Your task to perform on an android device: Search for "macbook pro 13 inch" on bestbuy.com, select the first entry, add it to the cart, then select checkout. Image 0: 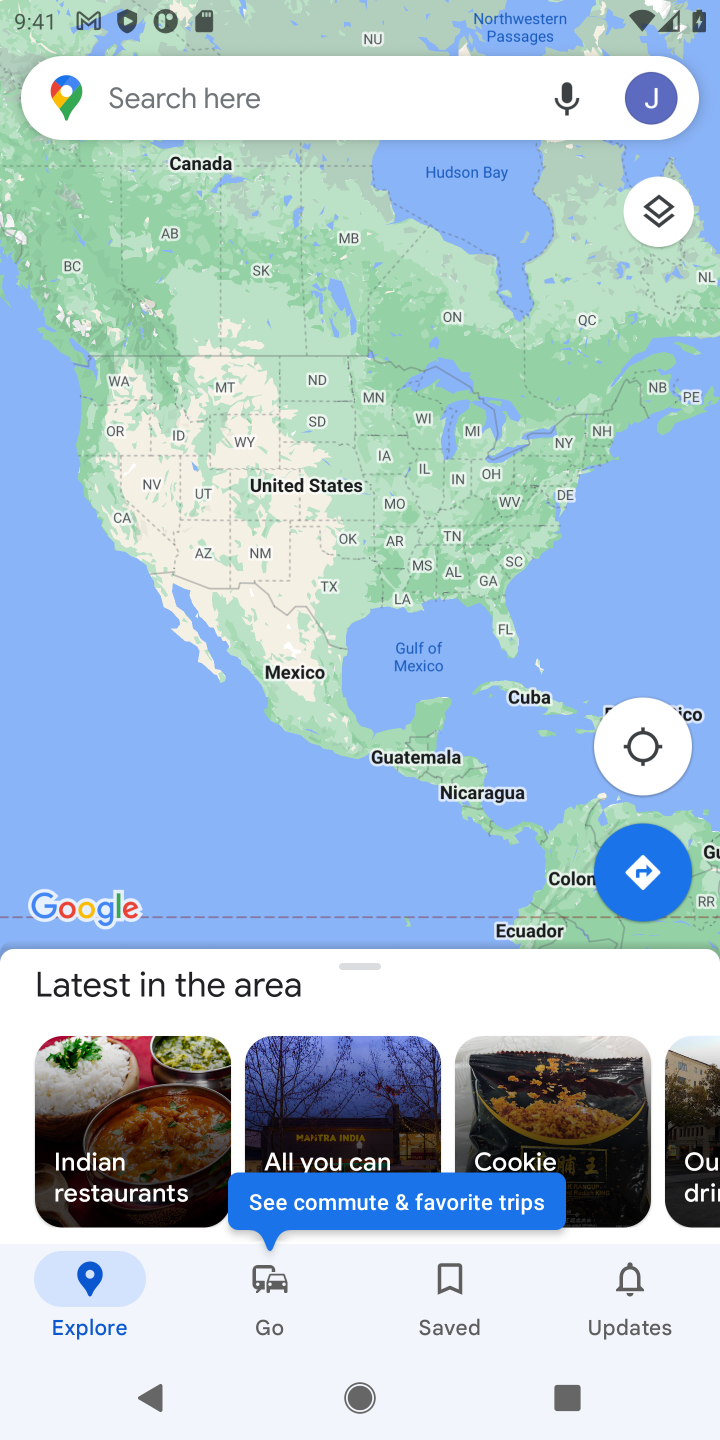
Step 0: press home button
Your task to perform on an android device: Search for "macbook pro 13 inch" on bestbuy.com, select the first entry, add it to the cart, then select checkout. Image 1: 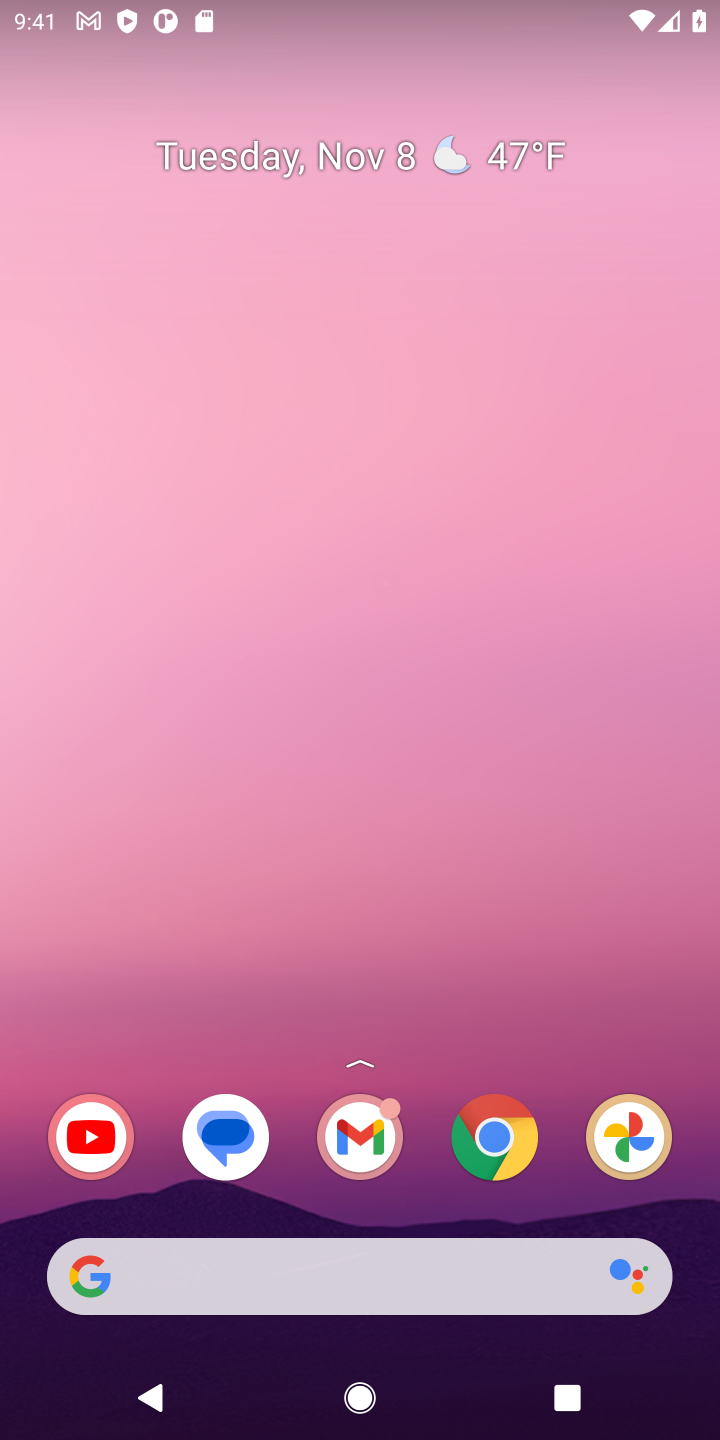
Step 1: click (494, 1135)
Your task to perform on an android device: Search for "macbook pro 13 inch" on bestbuy.com, select the first entry, add it to the cart, then select checkout. Image 2: 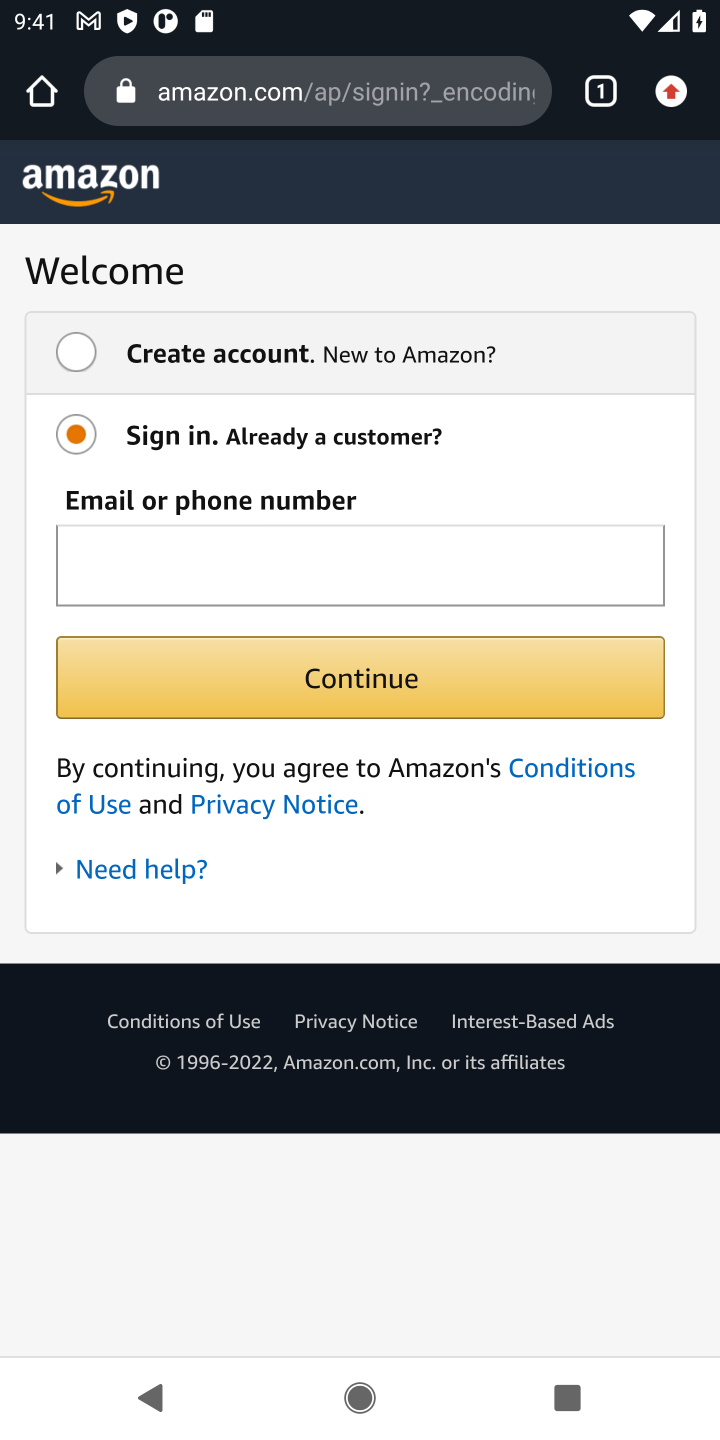
Step 2: click (418, 92)
Your task to perform on an android device: Search for "macbook pro 13 inch" on bestbuy.com, select the first entry, add it to the cart, then select checkout. Image 3: 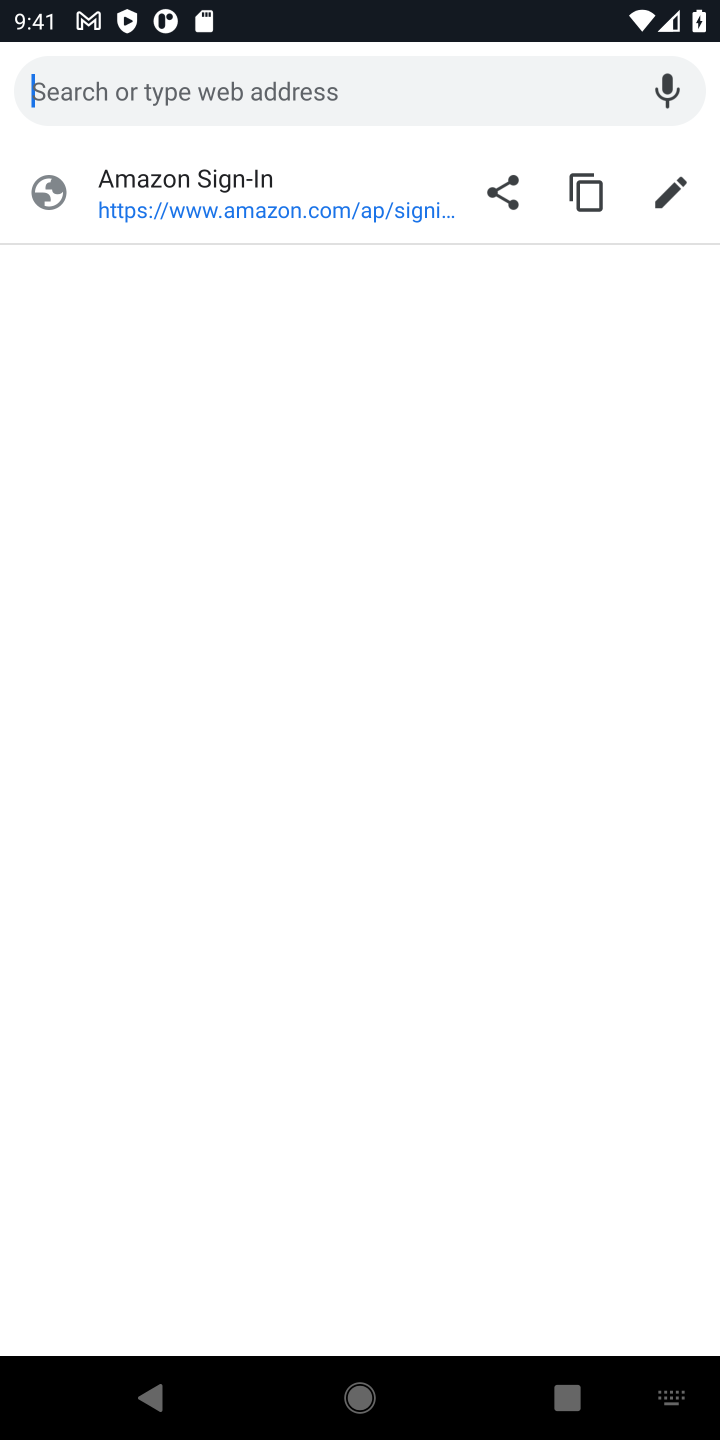
Step 3: type "bestbuy.com"
Your task to perform on an android device: Search for "macbook pro 13 inch" on bestbuy.com, select the first entry, add it to the cart, then select checkout. Image 4: 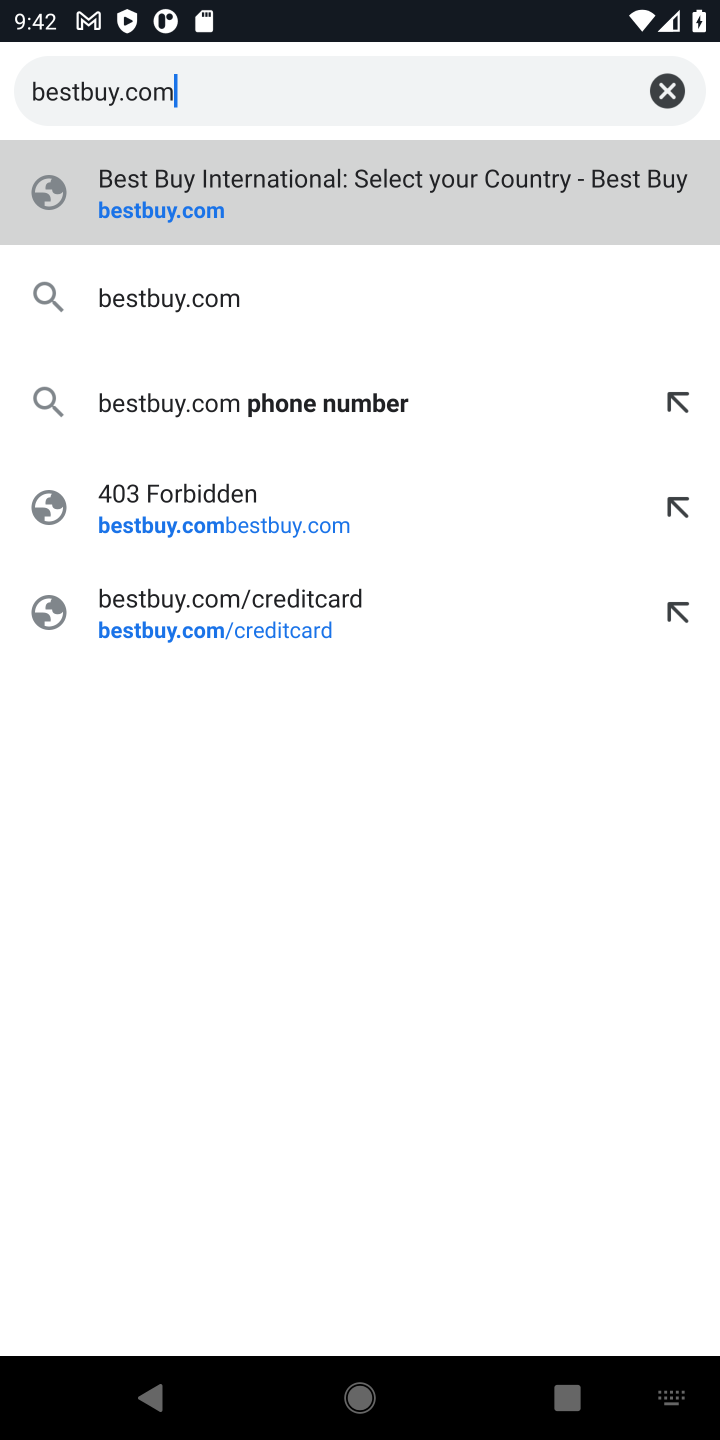
Step 4: click (235, 303)
Your task to perform on an android device: Search for "macbook pro 13 inch" on bestbuy.com, select the first entry, add it to the cart, then select checkout. Image 5: 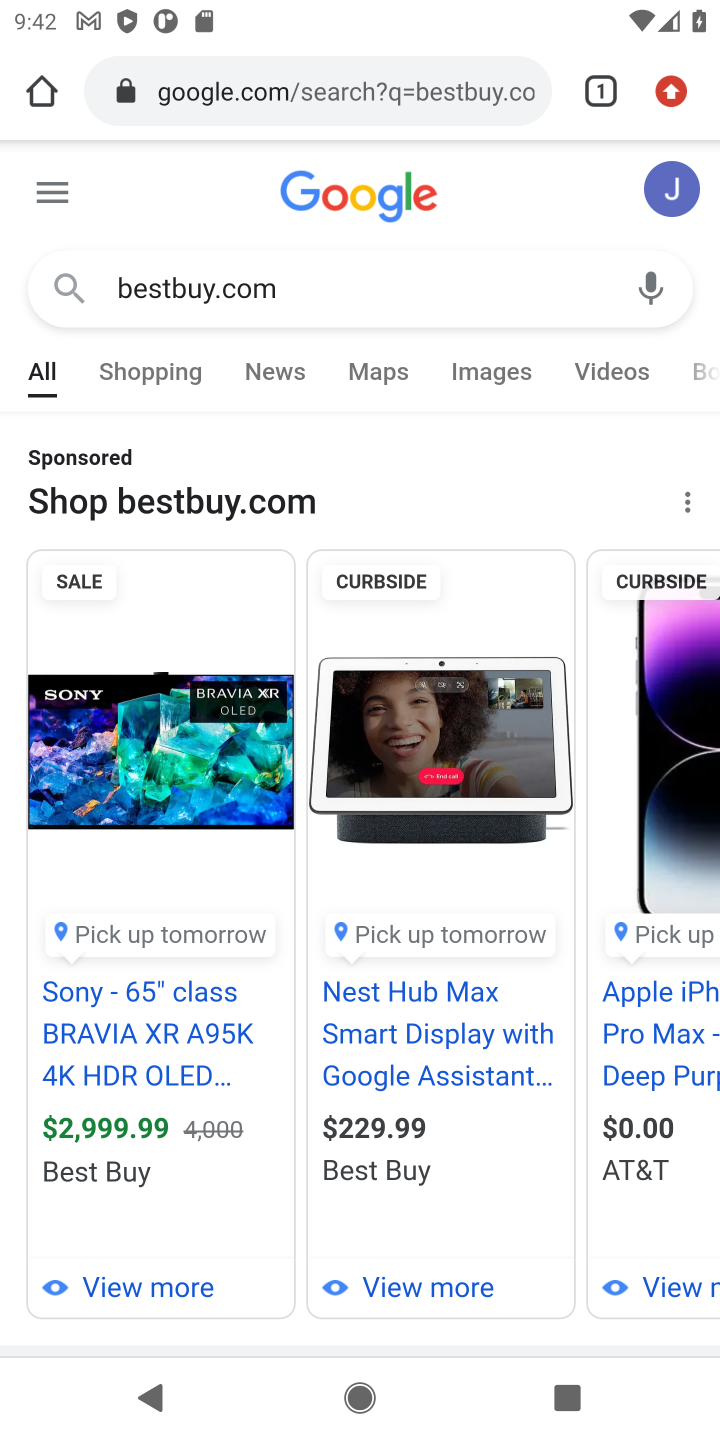
Step 5: drag from (481, 1187) to (561, 226)
Your task to perform on an android device: Search for "macbook pro 13 inch" on bestbuy.com, select the first entry, add it to the cart, then select checkout. Image 6: 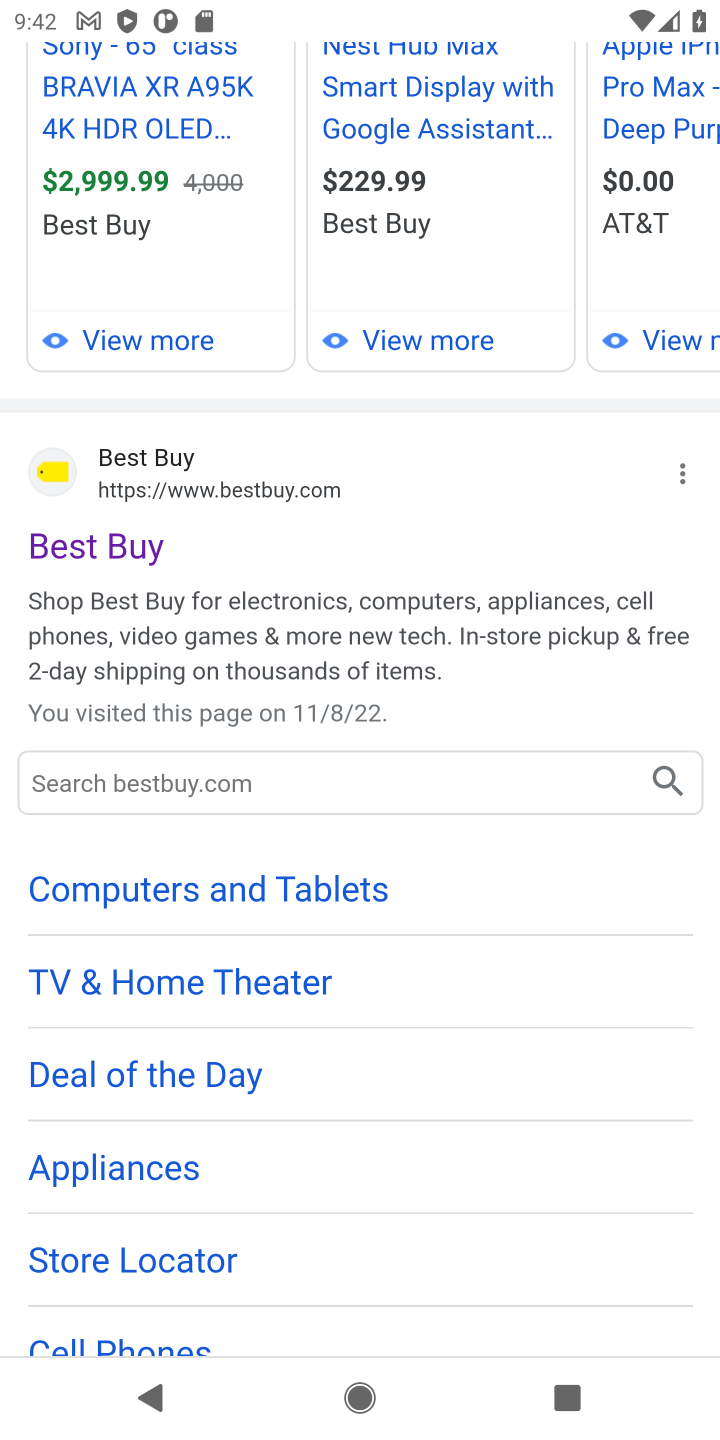
Step 6: click (172, 539)
Your task to perform on an android device: Search for "macbook pro 13 inch" on bestbuy.com, select the first entry, add it to the cart, then select checkout. Image 7: 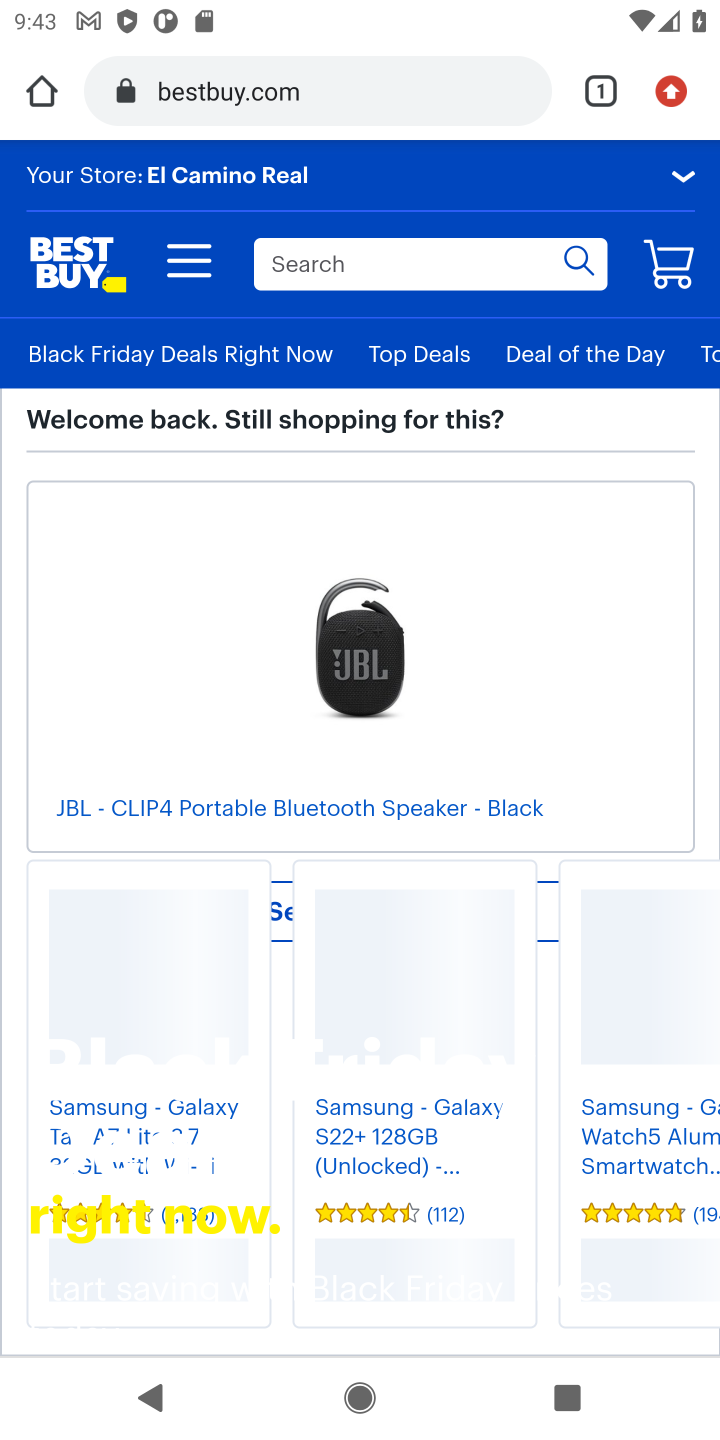
Step 7: click (364, 270)
Your task to perform on an android device: Search for "macbook pro 13 inch" on bestbuy.com, select the first entry, add it to the cart, then select checkout. Image 8: 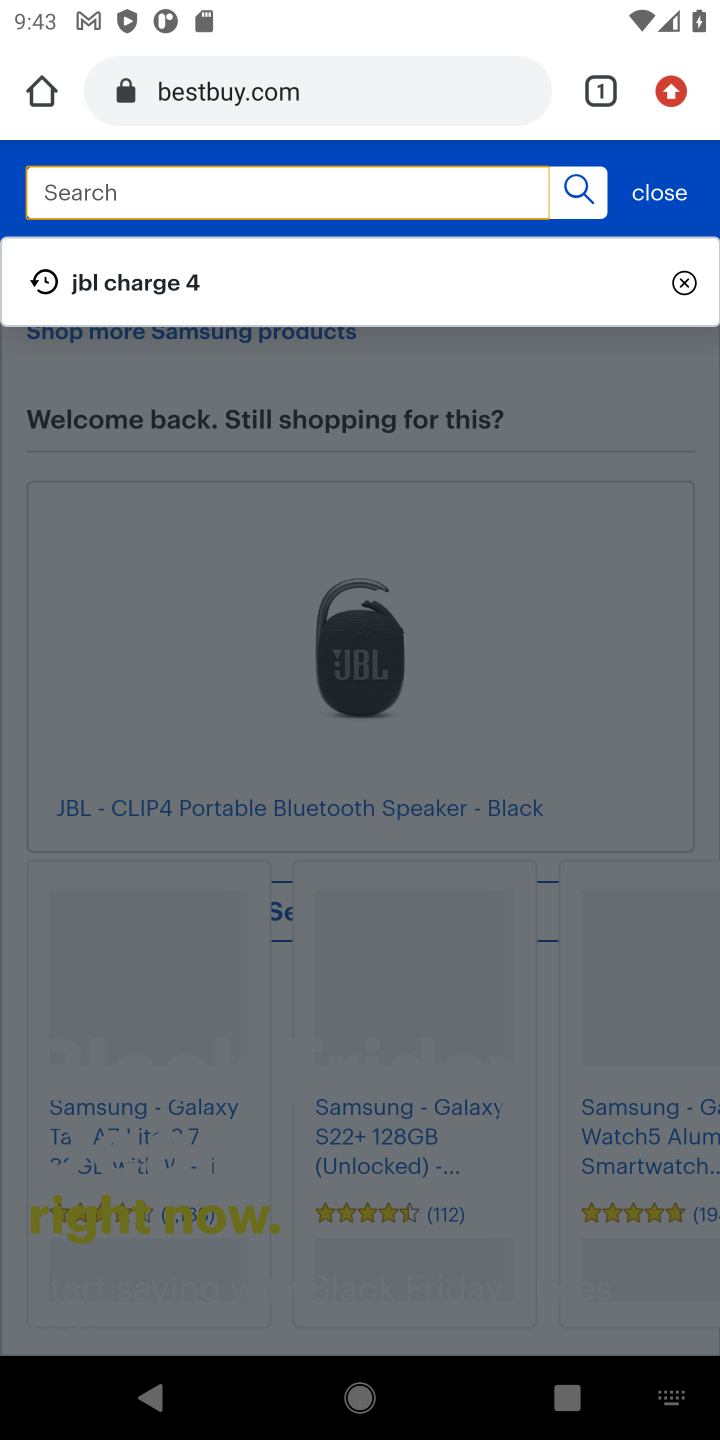
Step 8: type "macbook pro 13 inch"
Your task to perform on an android device: Search for "macbook pro 13 inch" on bestbuy.com, select the first entry, add it to the cart, then select checkout. Image 9: 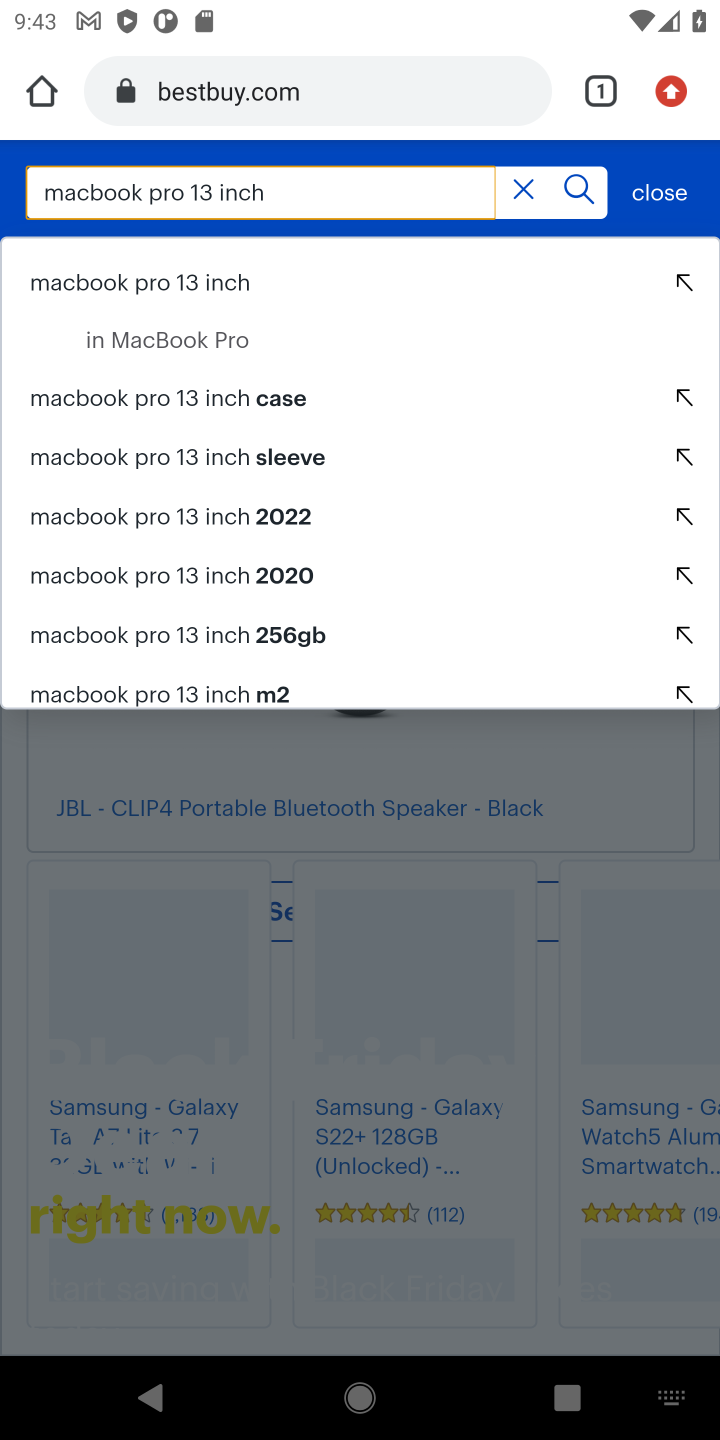
Step 9: click (195, 280)
Your task to perform on an android device: Search for "macbook pro 13 inch" on bestbuy.com, select the first entry, add it to the cart, then select checkout. Image 10: 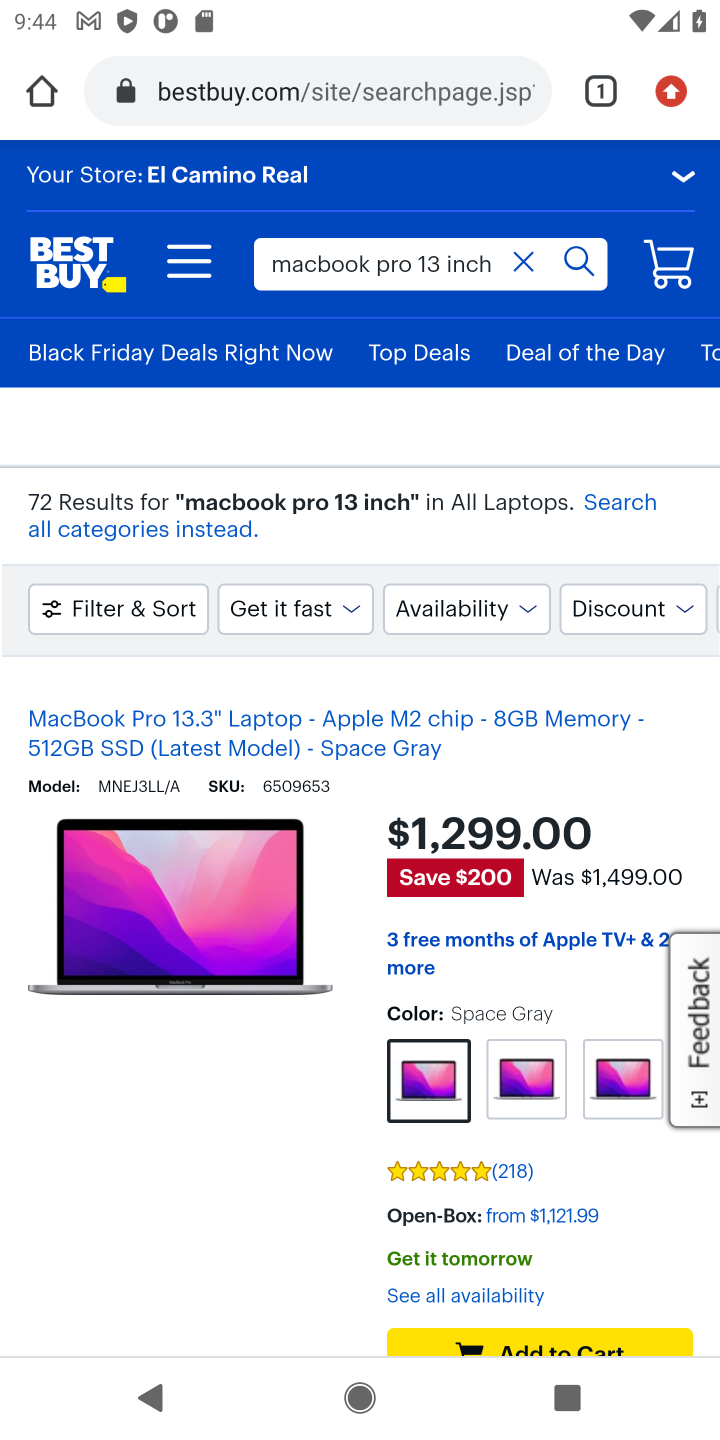
Step 10: drag from (589, 1255) to (524, 778)
Your task to perform on an android device: Search for "macbook pro 13 inch" on bestbuy.com, select the first entry, add it to the cart, then select checkout. Image 11: 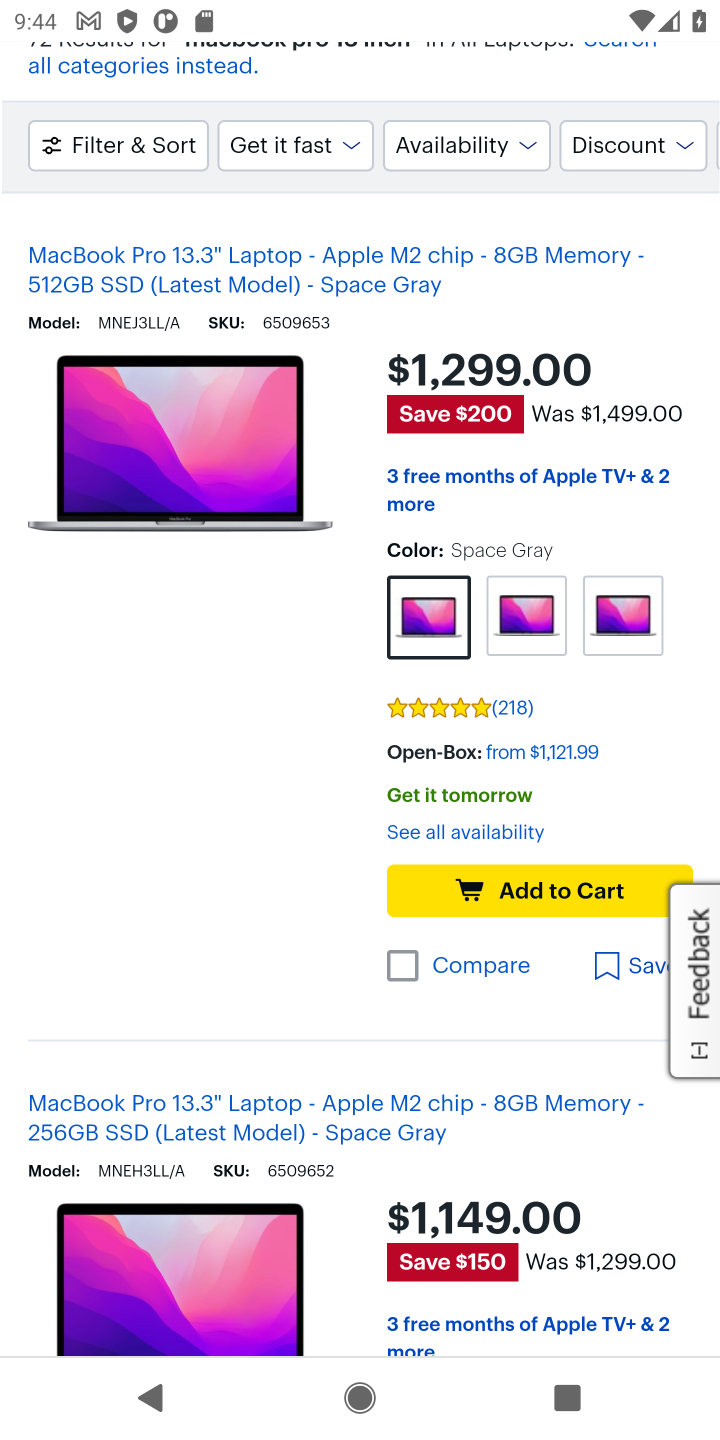
Step 11: click (528, 896)
Your task to perform on an android device: Search for "macbook pro 13 inch" on bestbuy.com, select the first entry, add it to the cart, then select checkout. Image 12: 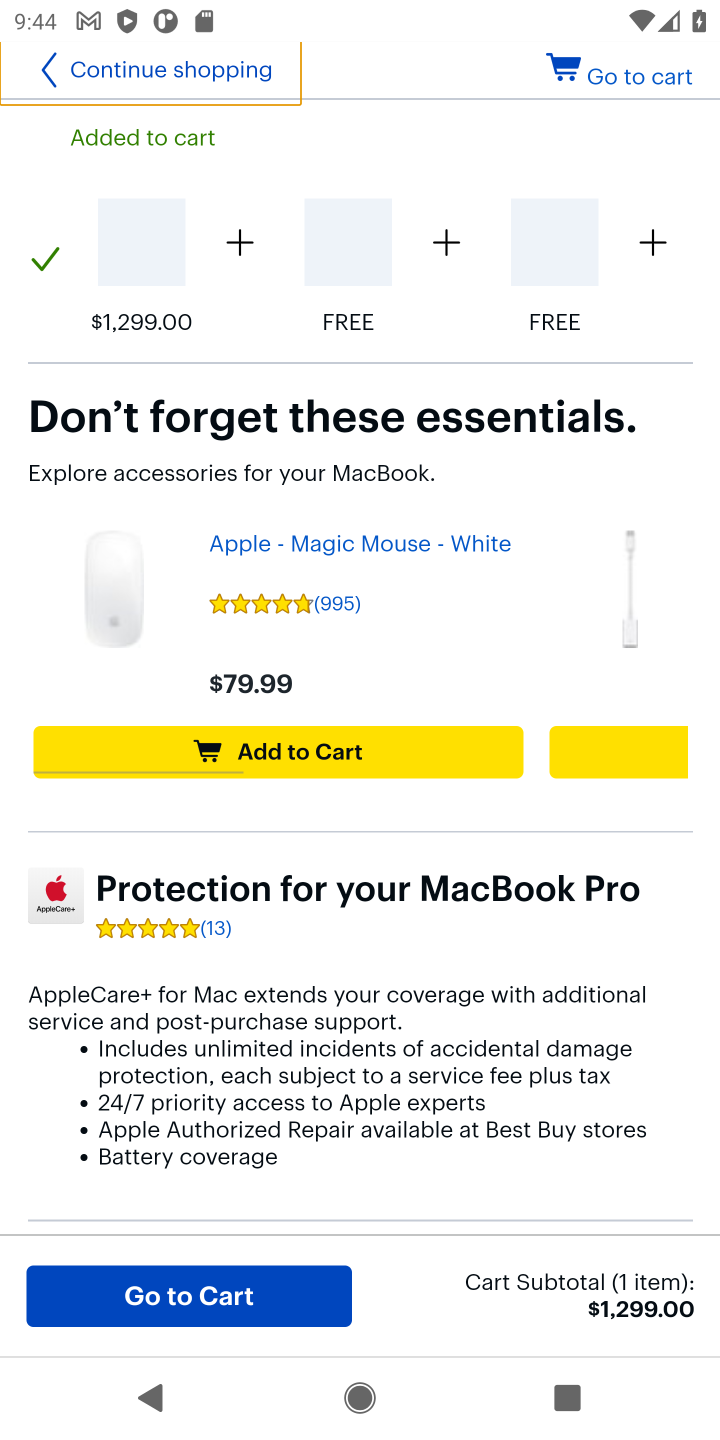
Step 12: click (190, 1294)
Your task to perform on an android device: Search for "macbook pro 13 inch" on bestbuy.com, select the first entry, add it to the cart, then select checkout. Image 13: 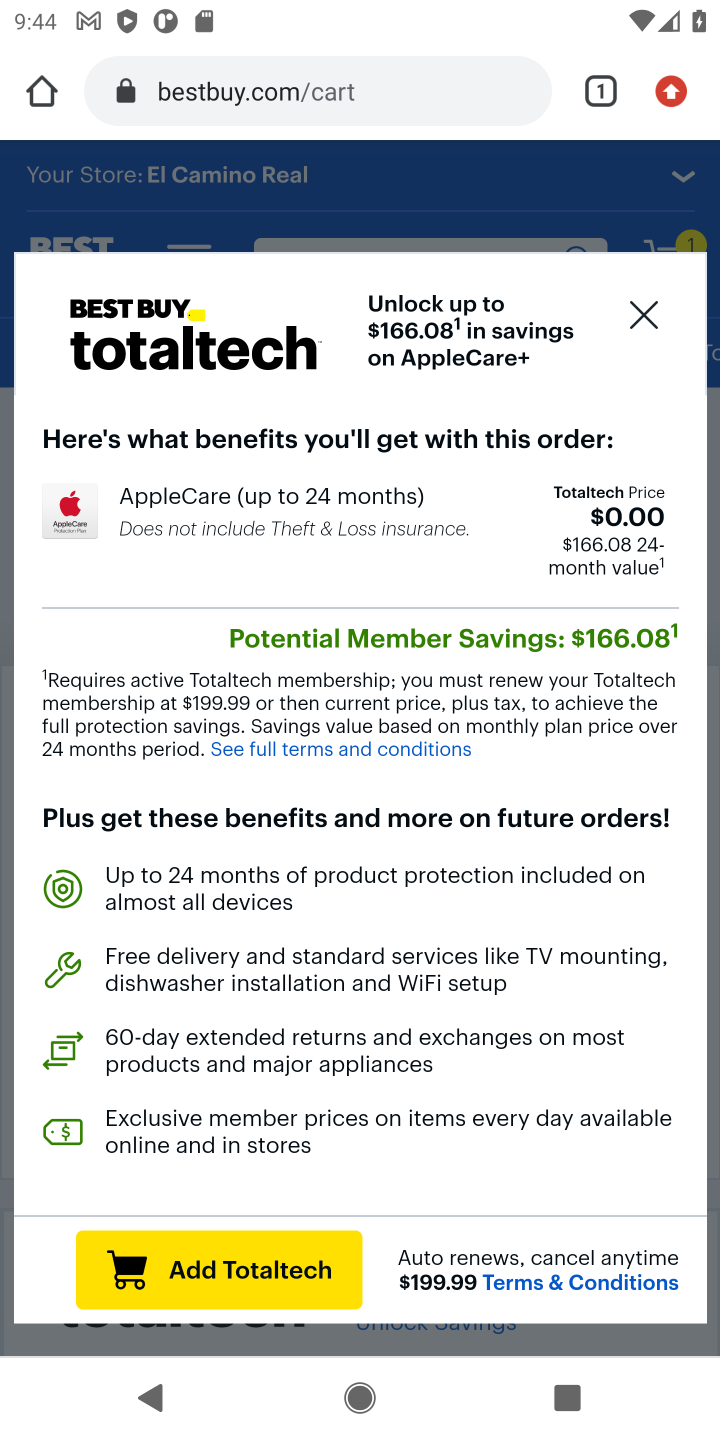
Step 13: click (655, 298)
Your task to perform on an android device: Search for "macbook pro 13 inch" on bestbuy.com, select the first entry, add it to the cart, then select checkout. Image 14: 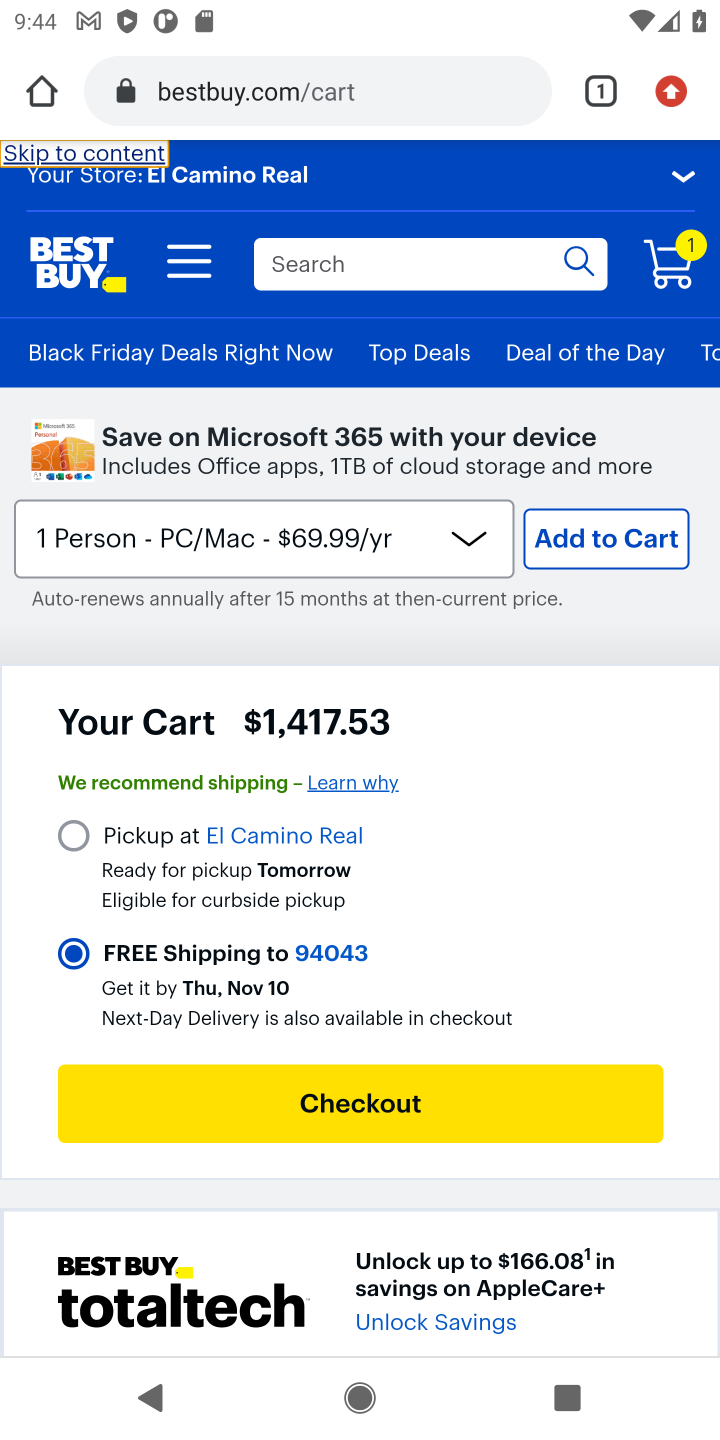
Step 14: click (357, 1101)
Your task to perform on an android device: Search for "macbook pro 13 inch" on bestbuy.com, select the first entry, add it to the cart, then select checkout. Image 15: 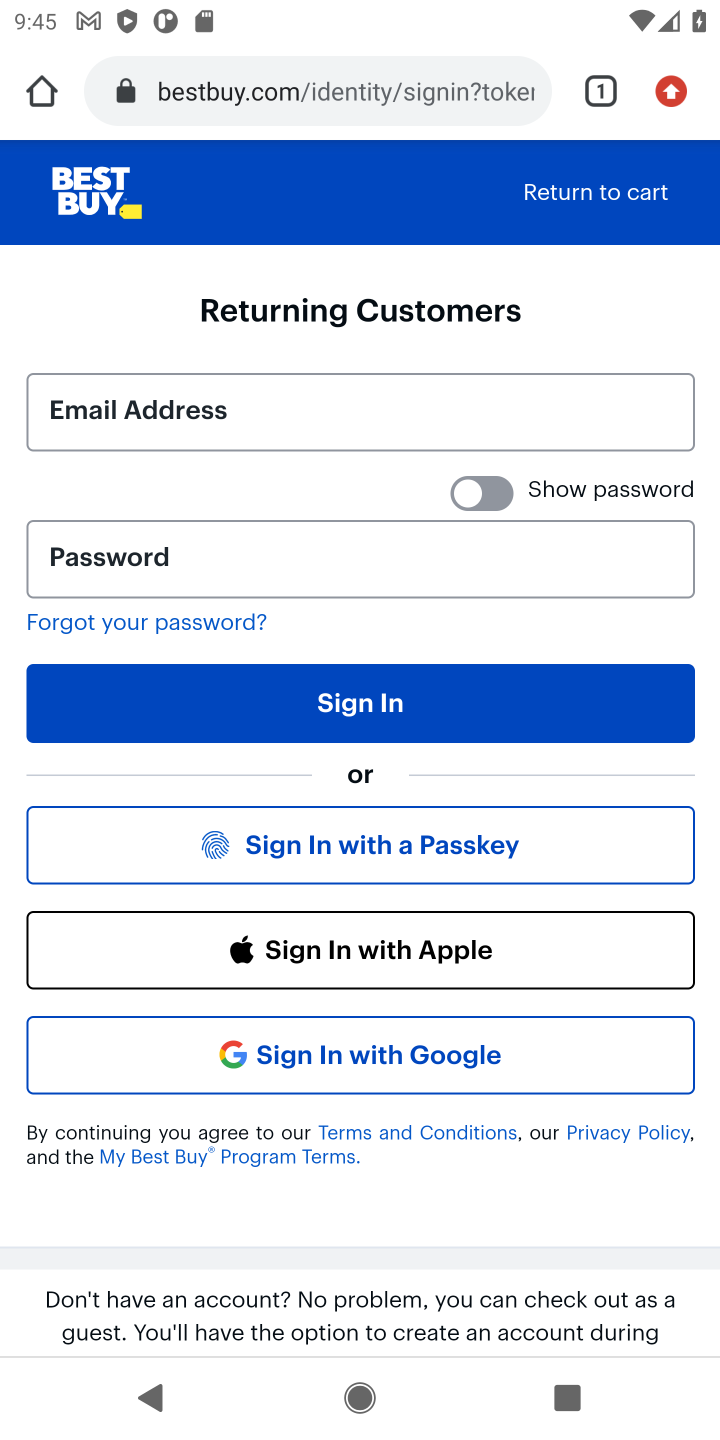
Step 15: task complete